Your task to perform on an android device: Open Wikipedia Image 0: 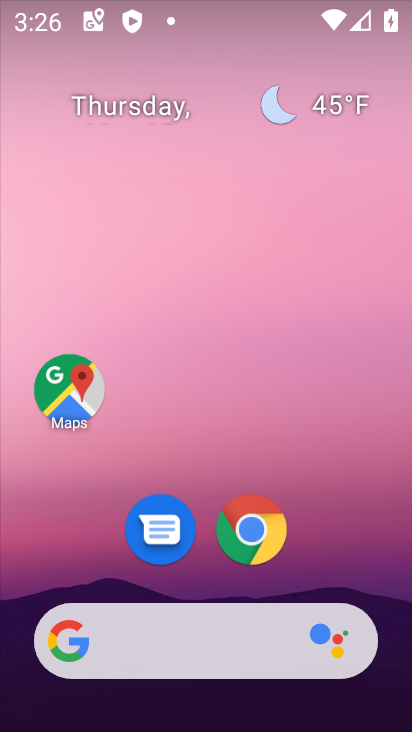
Step 0: drag from (351, 528) to (398, 49)
Your task to perform on an android device: Open Wikipedia Image 1: 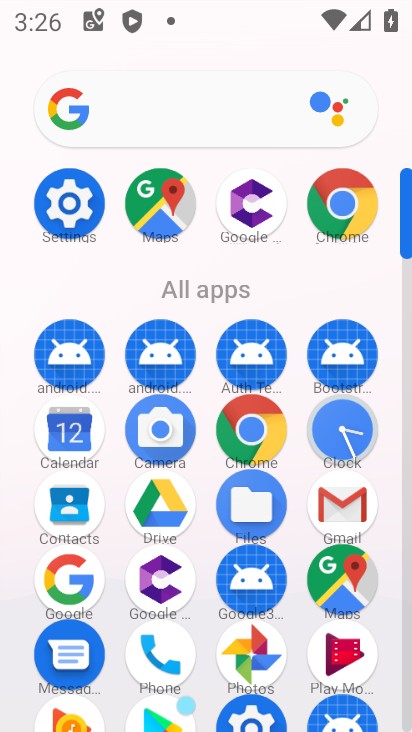
Step 1: click (338, 221)
Your task to perform on an android device: Open Wikipedia Image 2: 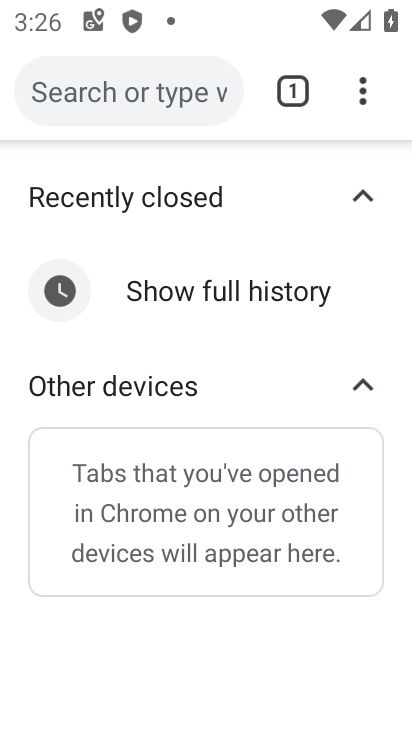
Step 2: click (178, 107)
Your task to perform on an android device: Open Wikipedia Image 3: 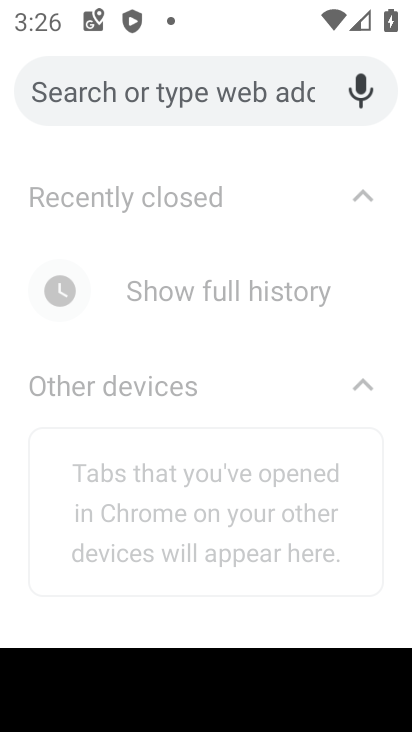
Step 3: type "wikipedia"
Your task to perform on an android device: Open Wikipedia Image 4: 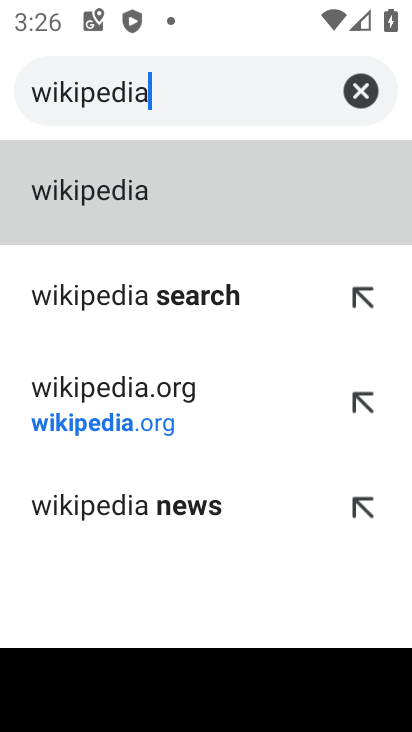
Step 4: click (76, 191)
Your task to perform on an android device: Open Wikipedia Image 5: 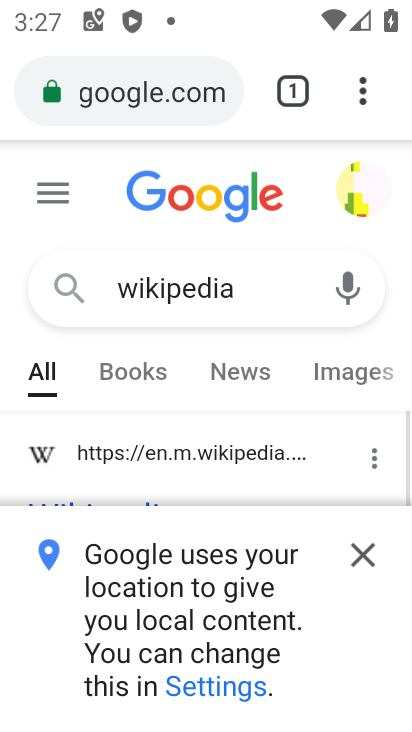
Step 5: click (356, 553)
Your task to perform on an android device: Open Wikipedia Image 6: 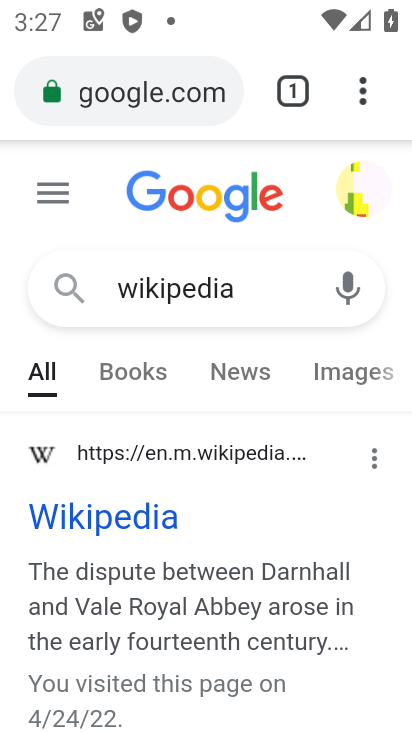
Step 6: click (108, 515)
Your task to perform on an android device: Open Wikipedia Image 7: 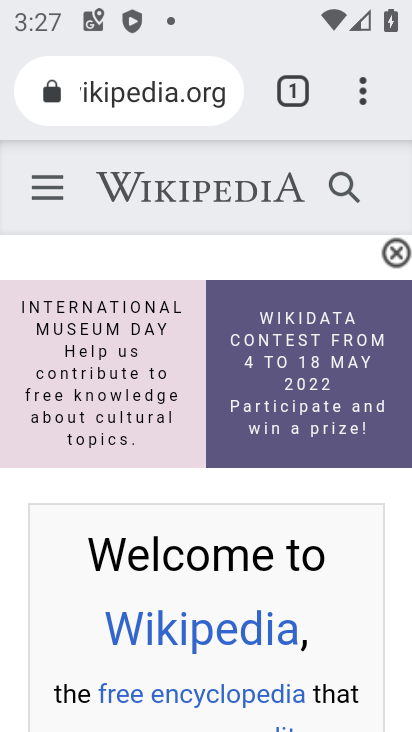
Step 7: task complete